Your task to perform on an android device: Open Youtube and go to "Your channel" Image 0: 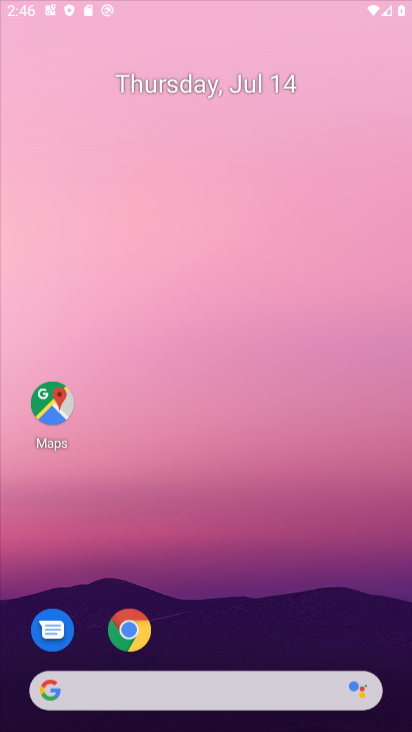
Step 0: press home button
Your task to perform on an android device: Open Youtube and go to "Your channel" Image 1: 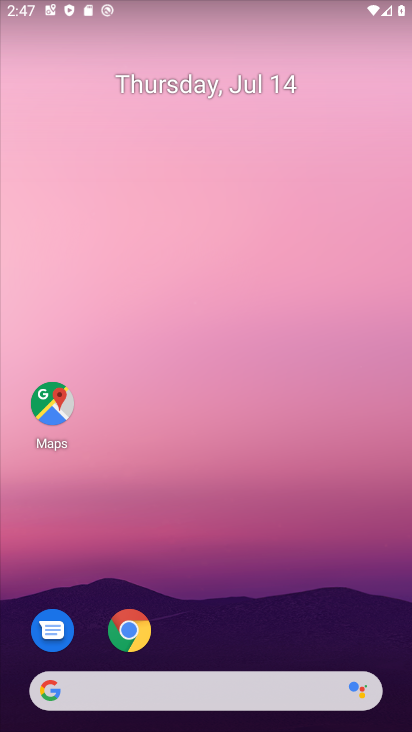
Step 1: drag from (197, 649) to (252, 80)
Your task to perform on an android device: Open Youtube and go to "Your channel" Image 2: 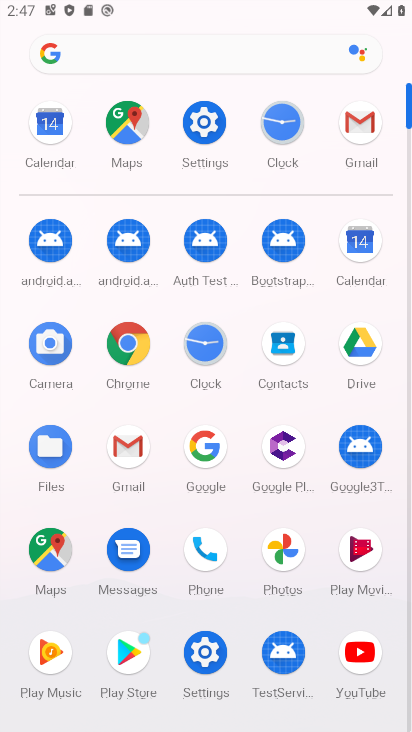
Step 2: click (355, 646)
Your task to perform on an android device: Open Youtube and go to "Your channel" Image 3: 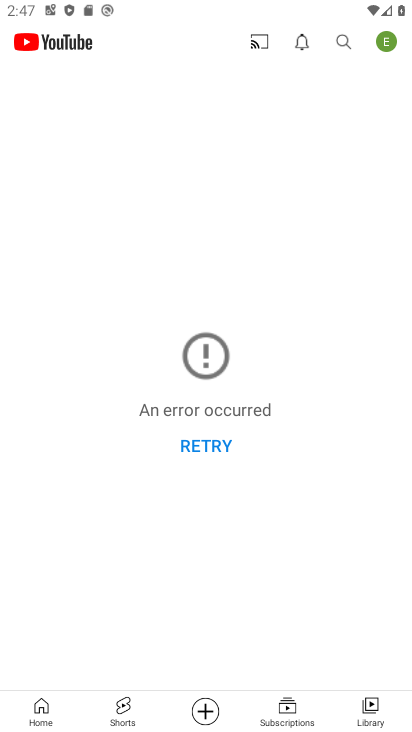
Step 3: click (378, 48)
Your task to perform on an android device: Open Youtube and go to "Your channel" Image 4: 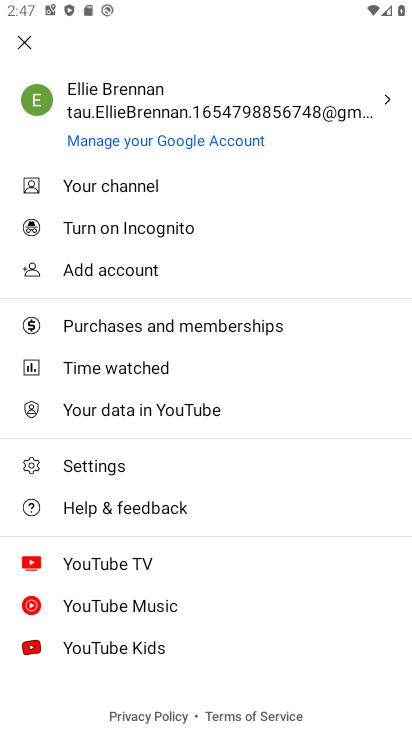
Step 4: click (150, 184)
Your task to perform on an android device: Open Youtube and go to "Your channel" Image 5: 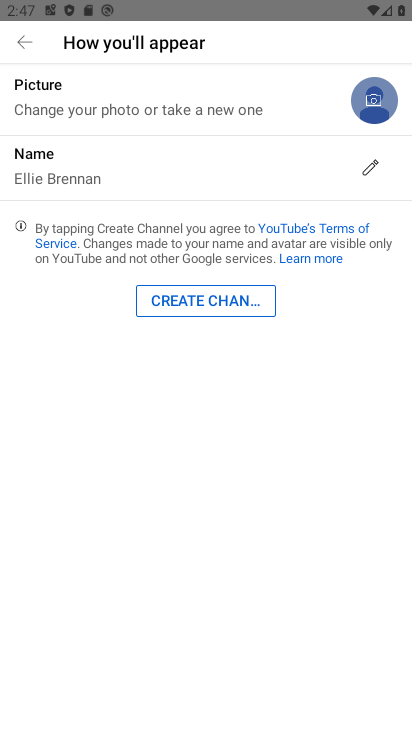
Step 5: task complete